Your task to perform on an android device: turn off priority inbox in the gmail app Image 0: 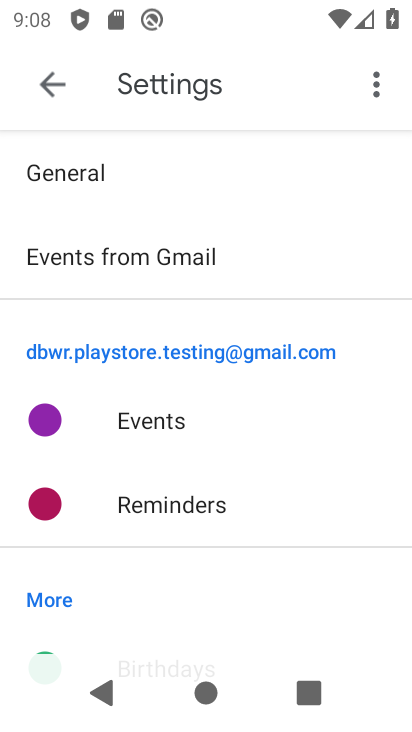
Step 0: press home button
Your task to perform on an android device: turn off priority inbox in the gmail app Image 1: 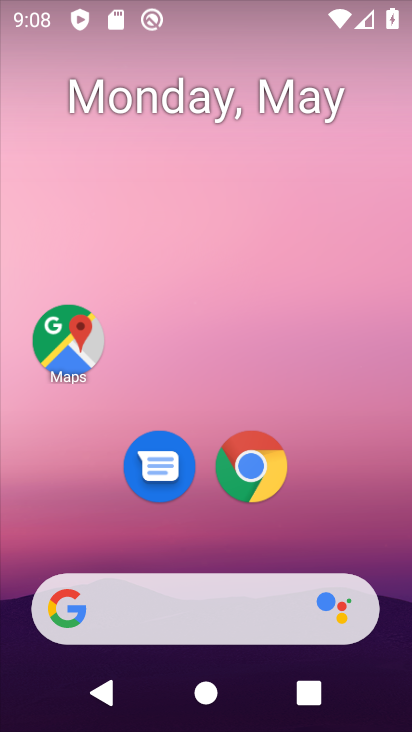
Step 1: drag from (289, 528) to (310, 104)
Your task to perform on an android device: turn off priority inbox in the gmail app Image 2: 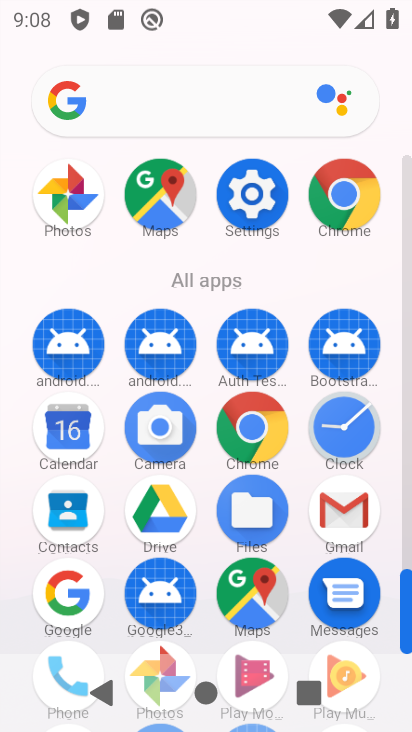
Step 2: click (347, 510)
Your task to perform on an android device: turn off priority inbox in the gmail app Image 3: 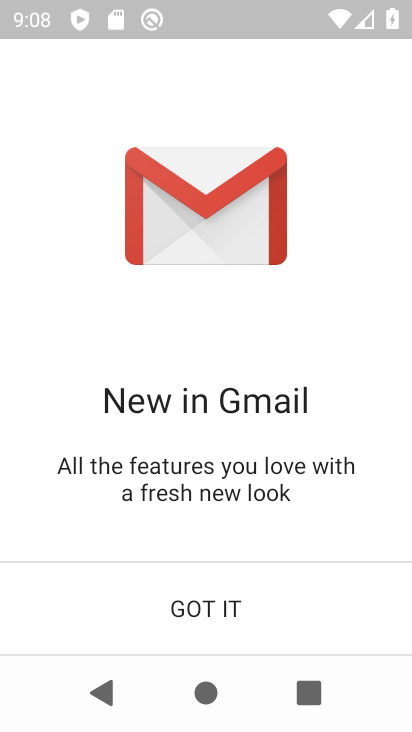
Step 3: click (210, 624)
Your task to perform on an android device: turn off priority inbox in the gmail app Image 4: 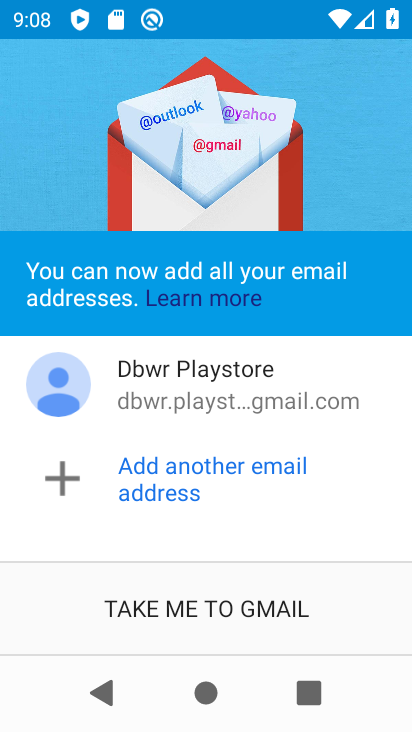
Step 4: click (218, 621)
Your task to perform on an android device: turn off priority inbox in the gmail app Image 5: 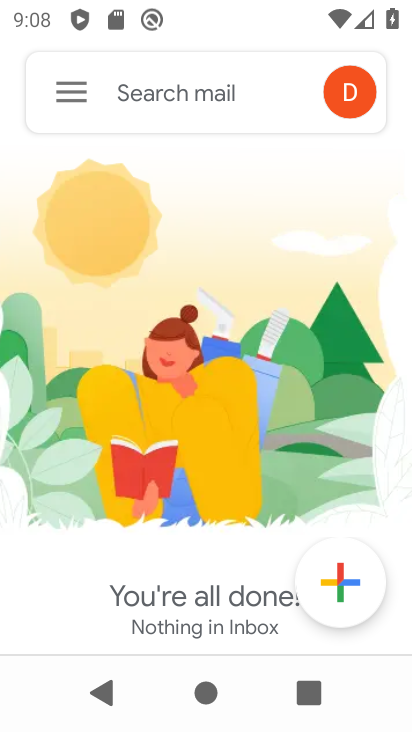
Step 5: click (76, 99)
Your task to perform on an android device: turn off priority inbox in the gmail app Image 6: 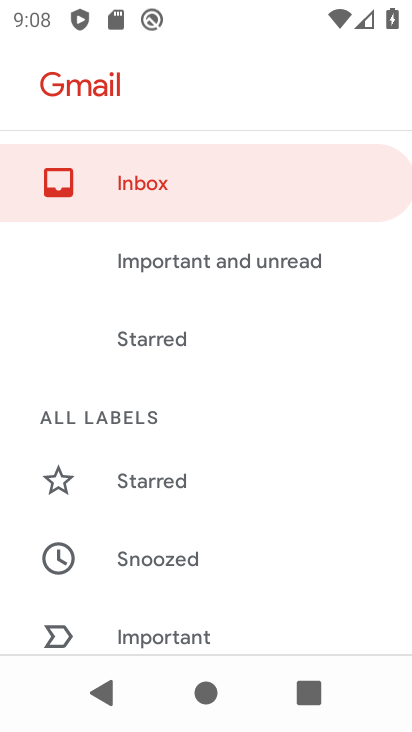
Step 6: drag from (259, 516) to (257, 81)
Your task to perform on an android device: turn off priority inbox in the gmail app Image 7: 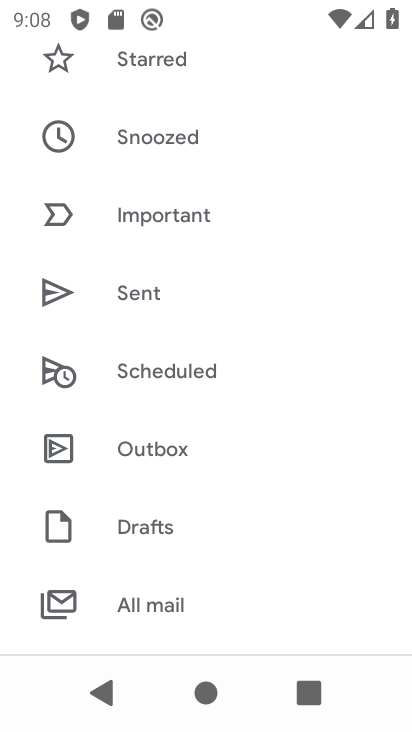
Step 7: drag from (263, 615) to (235, 229)
Your task to perform on an android device: turn off priority inbox in the gmail app Image 8: 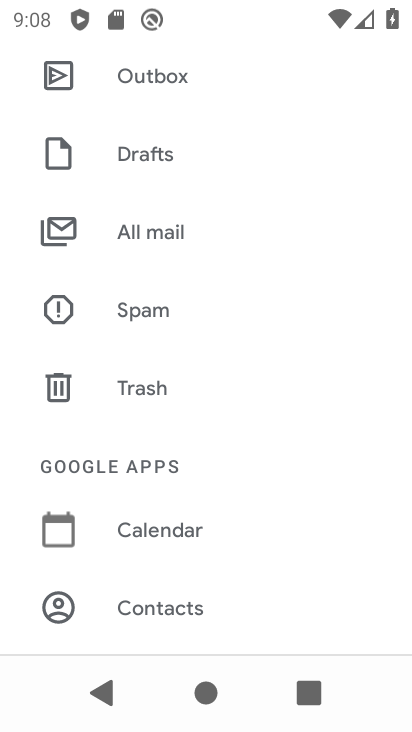
Step 8: drag from (235, 612) to (251, 200)
Your task to perform on an android device: turn off priority inbox in the gmail app Image 9: 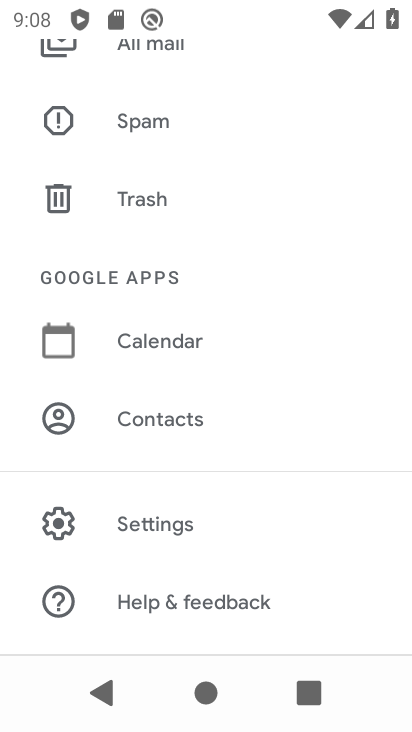
Step 9: click (153, 512)
Your task to perform on an android device: turn off priority inbox in the gmail app Image 10: 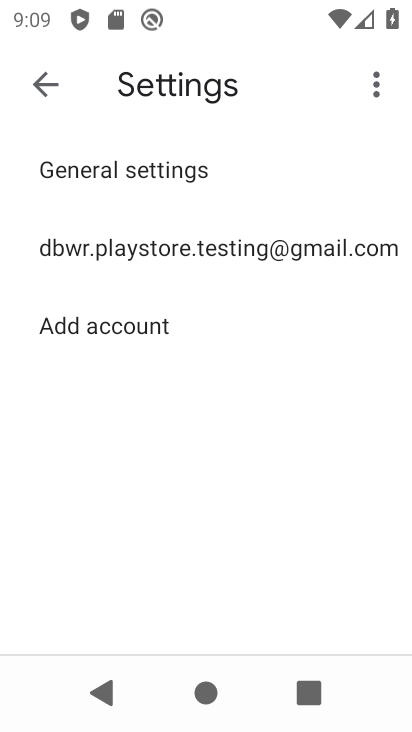
Step 10: click (308, 247)
Your task to perform on an android device: turn off priority inbox in the gmail app Image 11: 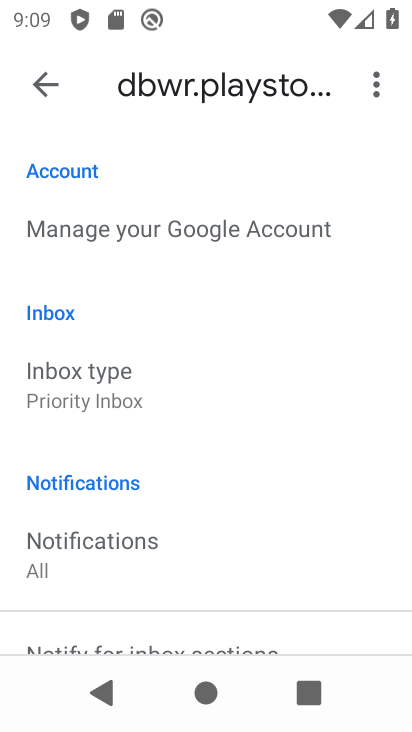
Step 11: drag from (260, 570) to (288, 205)
Your task to perform on an android device: turn off priority inbox in the gmail app Image 12: 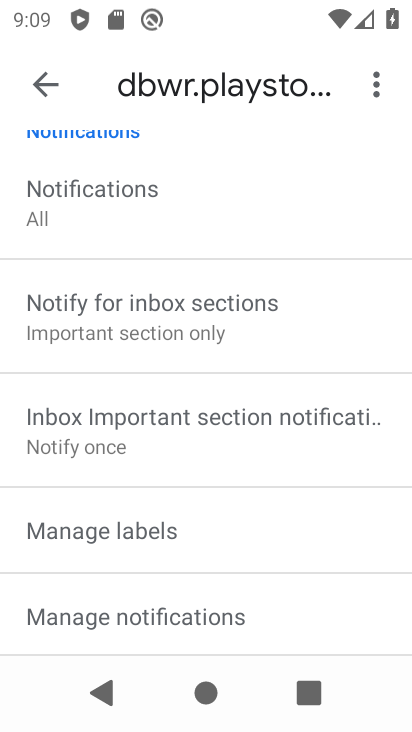
Step 12: drag from (278, 592) to (299, 225)
Your task to perform on an android device: turn off priority inbox in the gmail app Image 13: 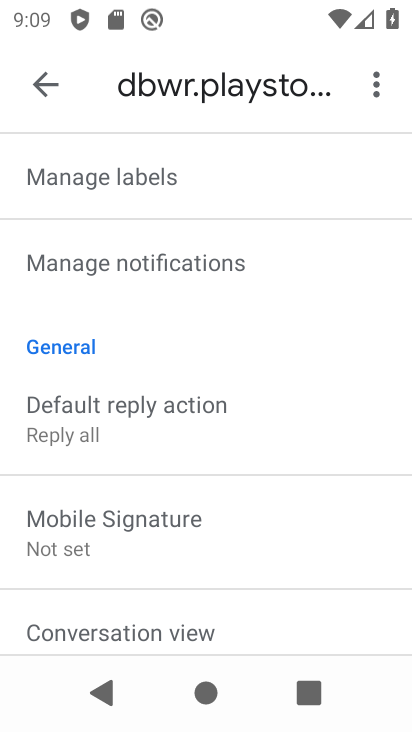
Step 13: drag from (251, 605) to (272, 710)
Your task to perform on an android device: turn off priority inbox in the gmail app Image 14: 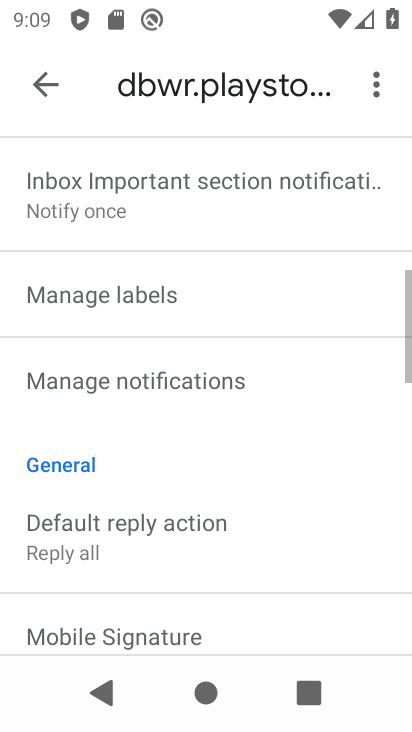
Step 14: drag from (280, 219) to (265, 675)
Your task to perform on an android device: turn off priority inbox in the gmail app Image 15: 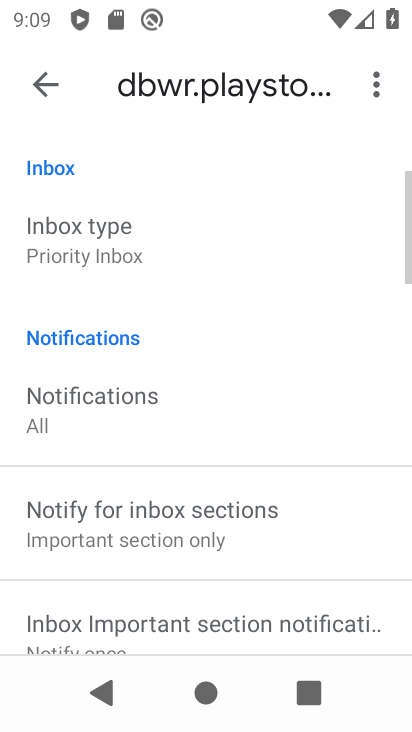
Step 15: drag from (265, 225) to (260, 615)
Your task to perform on an android device: turn off priority inbox in the gmail app Image 16: 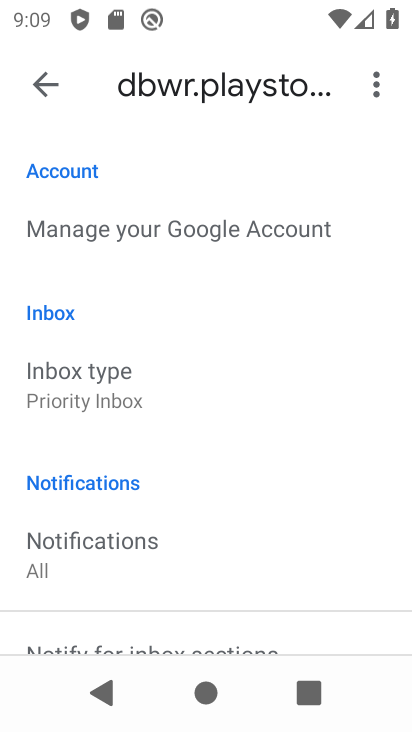
Step 16: click (68, 376)
Your task to perform on an android device: turn off priority inbox in the gmail app Image 17: 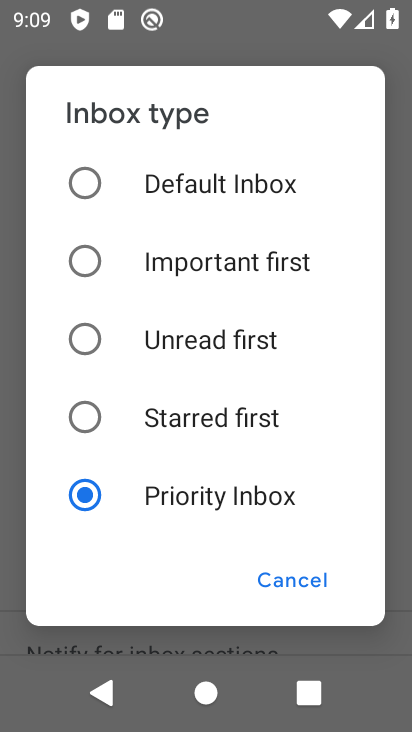
Step 17: click (199, 192)
Your task to perform on an android device: turn off priority inbox in the gmail app Image 18: 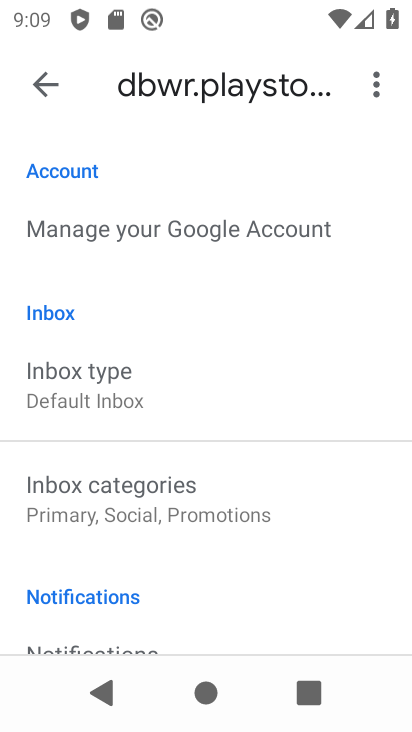
Step 18: task complete